Your task to perform on an android device: add a contact in the contacts app Image 0: 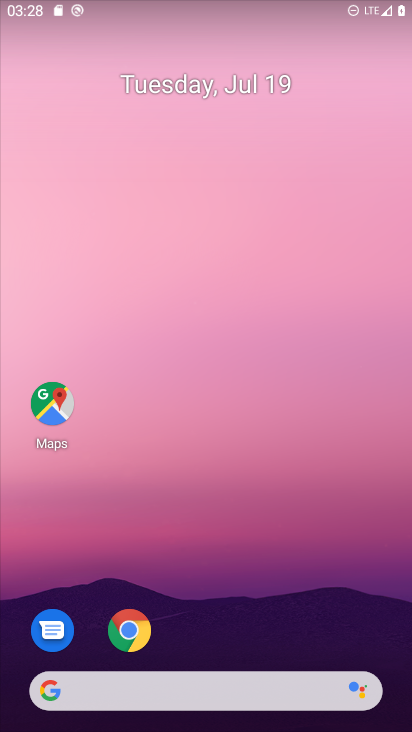
Step 0: drag from (379, 658) to (327, 66)
Your task to perform on an android device: add a contact in the contacts app Image 1: 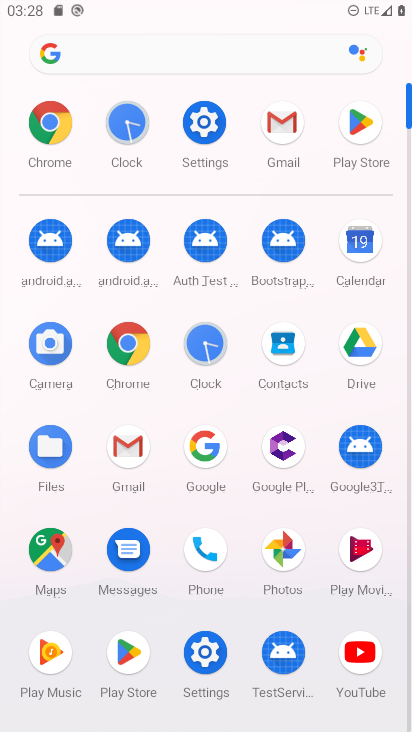
Step 1: click (286, 347)
Your task to perform on an android device: add a contact in the contacts app Image 2: 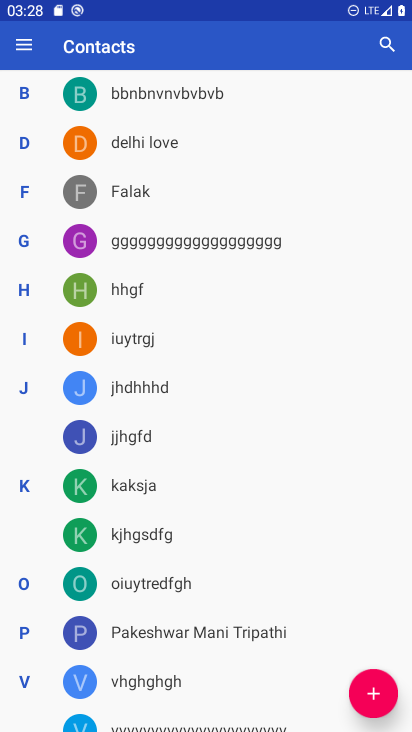
Step 2: click (374, 697)
Your task to perform on an android device: add a contact in the contacts app Image 3: 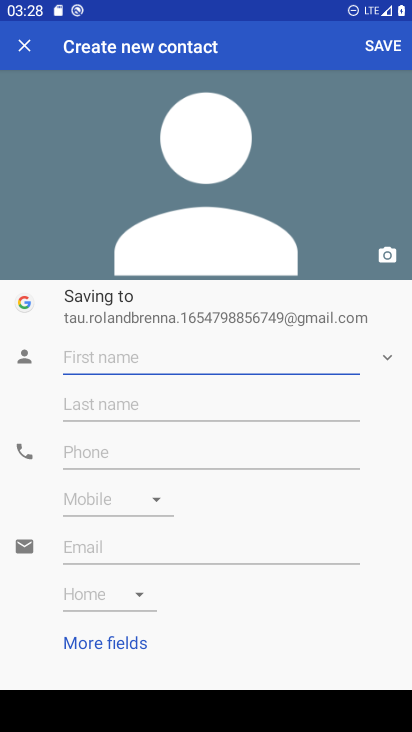
Step 3: type "mjhnnnfg"
Your task to perform on an android device: add a contact in the contacts app Image 4: 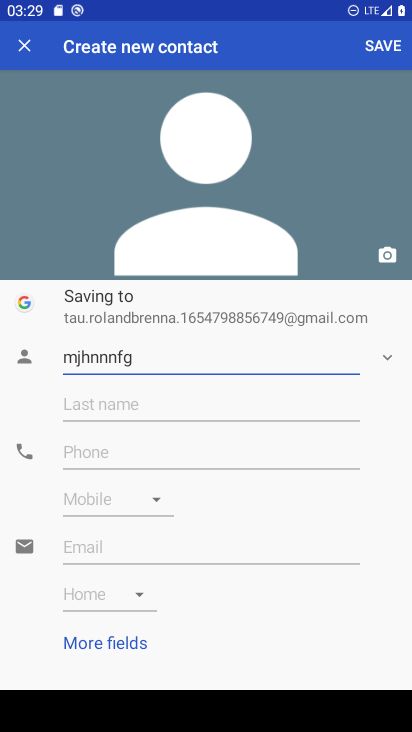
Step 4: click (114, 447)
Your task to perform on an android device: add a contact in the contacts app Image 5: 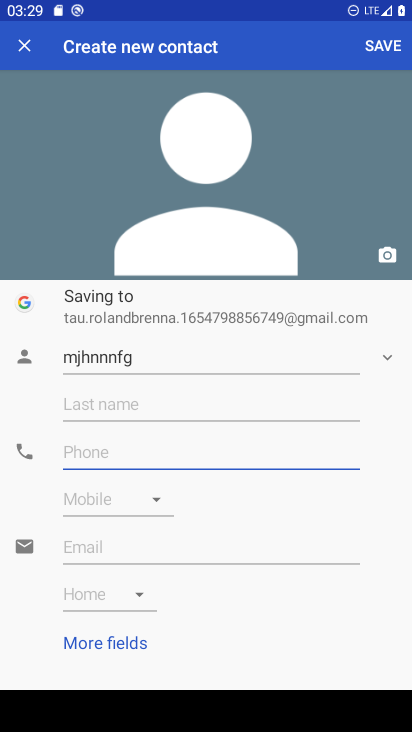
Step 5: type "098765434"
Your task to perform on an android device: add a contact in the contacts app Image 6: 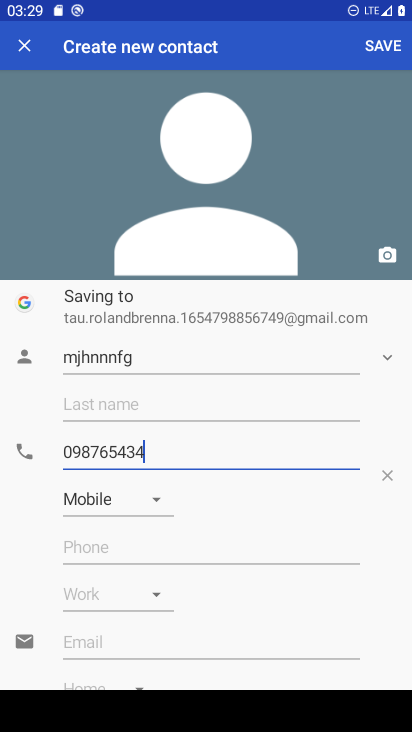
Step 6: click (385, 45)
Your task to perform on an android device: add a contact in the contacts app Image 7: 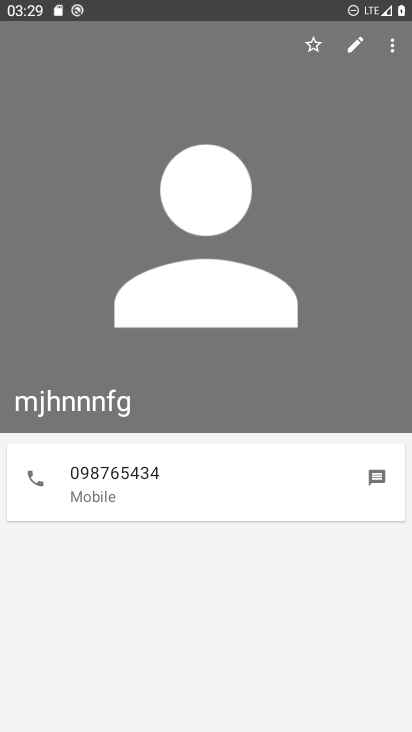
Step 7: task complete